Your task to perform on an android device: turn off improve location accuracy Image 0: 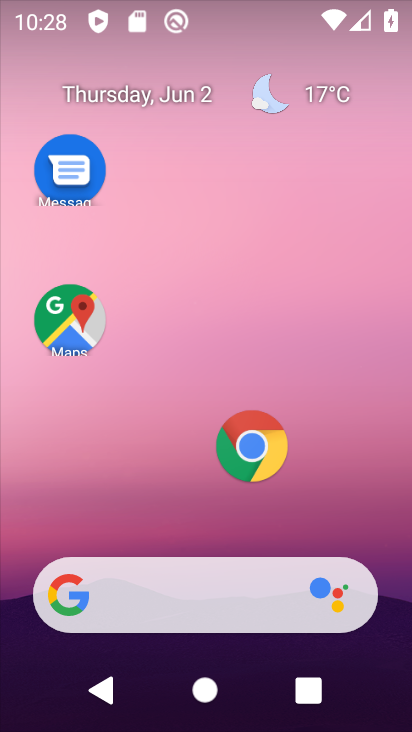
Step 0: drag from (184, 457) to (197, 20)
Your task to perform on an android device: turn off improve location accuracy Image 1: 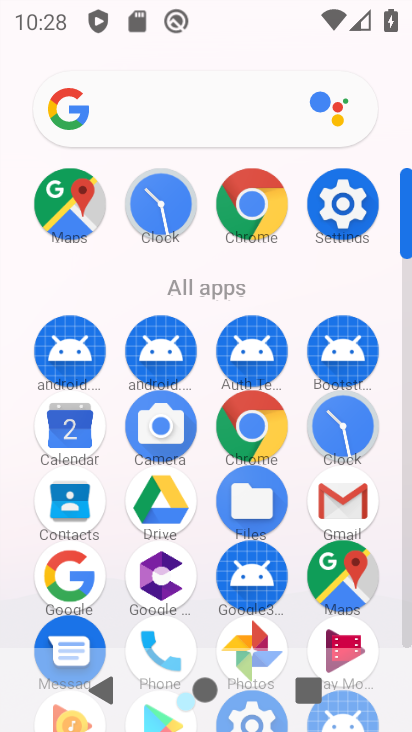
Step 1: drag from (225, 591) to (244, 515)
Your task to perform on an android device: turn off improve location accuracy Image 2: 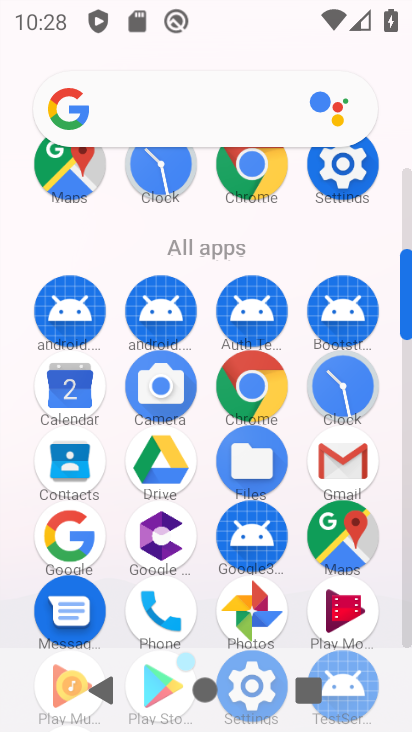
Step 2: click (350, 172)
Your task to perform on an android device: turn off improve location accuracy Image 3: 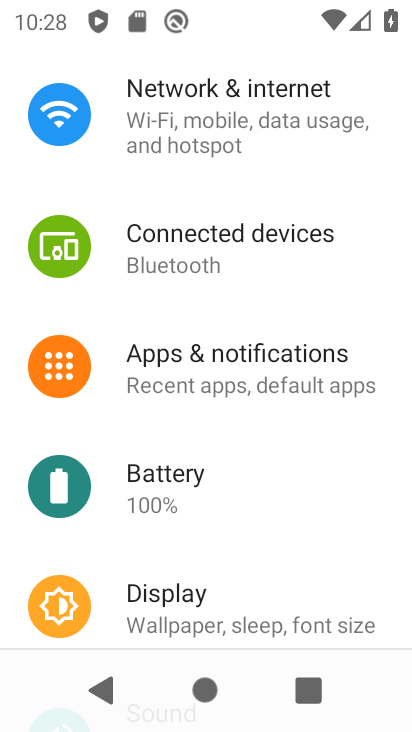
Step 3: drag from (315, 626) to (183, 237)
Your task to perform on an android device: turn off improve location accuracy Image 4: 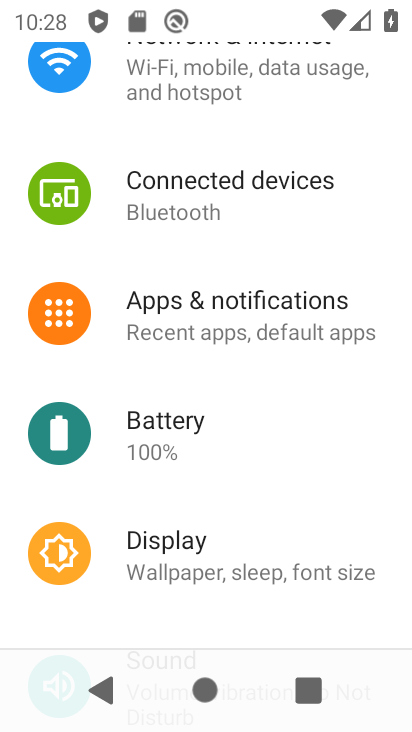
Step 4: drag from (286, 467) to (264, 166)
Your task to perform on an android device: turn off improve location accuracy Image 5: 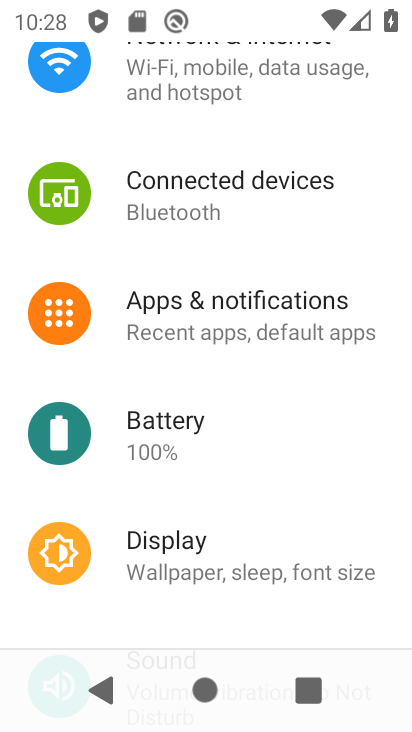
Step 5: drag from (220, 524) to (259, 22)
Your task to perform on an android device: turn off improve location accuracy Image 6: 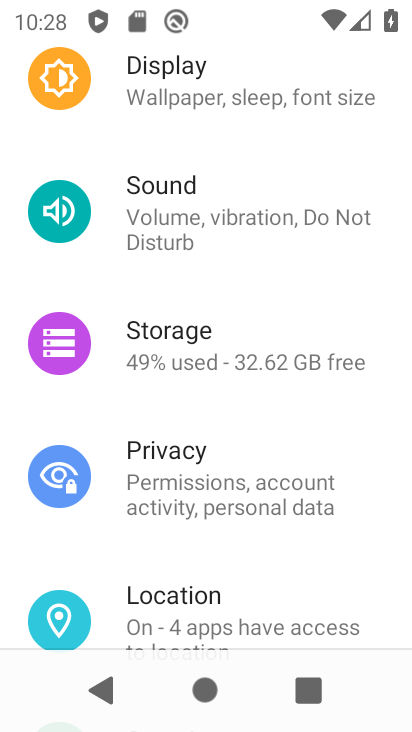
Step 6: drag from (251, 445) to (250, 71)
Your task to perform on an android device: turn off improve location accuracy Image 7: 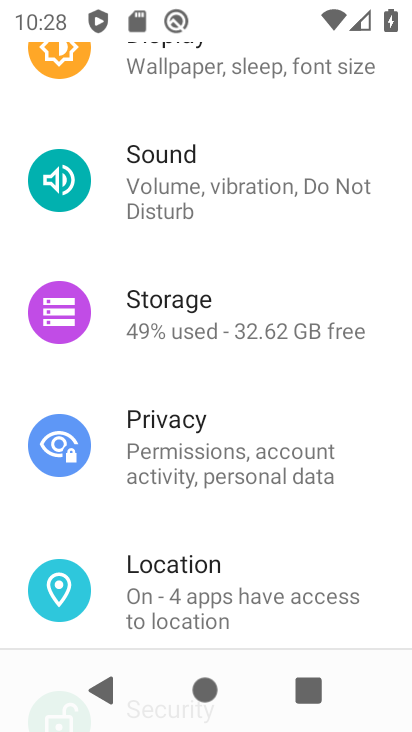
Step 7: click (193, 574)
Your task to perform on an android device: turn off improve location accuracy Image 8: 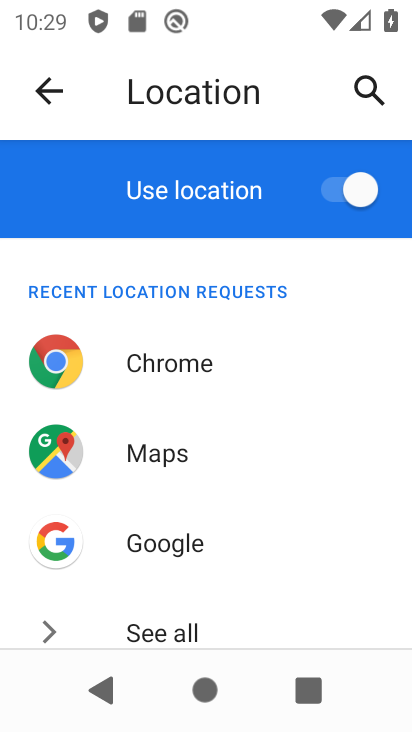
Step 8: drag from (237, 595) to (244, 299)
Your task to perform on an android device: turn off improve location accuracy Image 9: 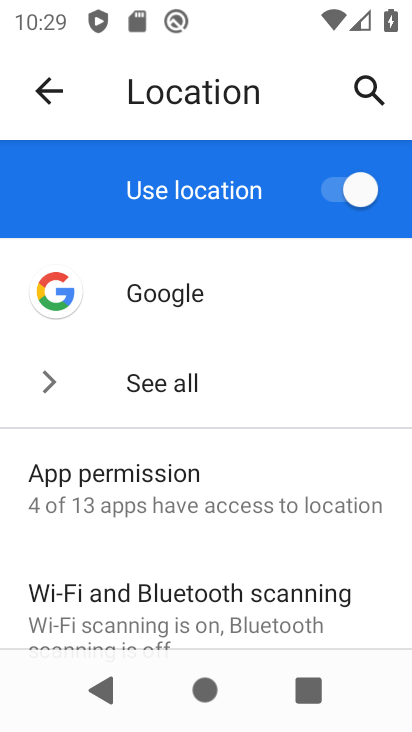
Step 9: drag from (213, 556) to (233, 352)
Your task to perform on an android device: turn off improve location accuracy Image 10: 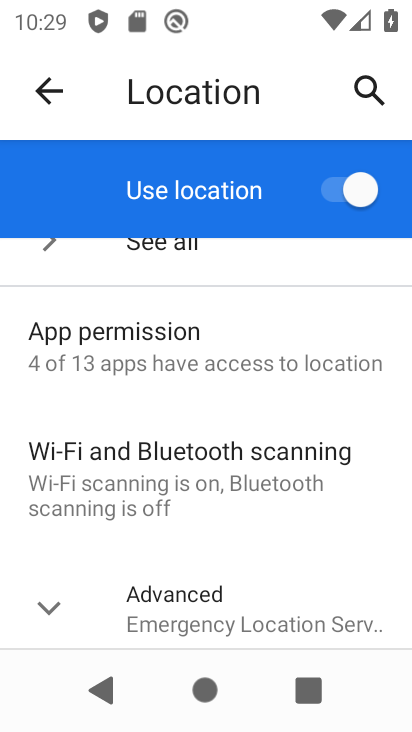
Step 10: drag from (123, 575) to (214, 427)
Your task to perform on an android device: turn off improve location accuracy Image 11: 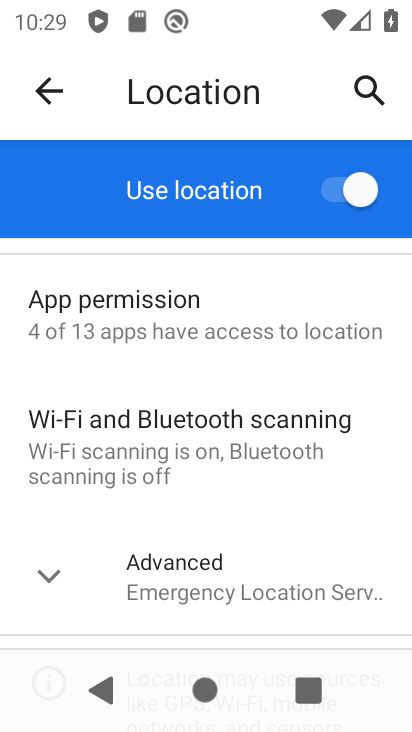
Step 11: click (145, 590)
Your task to perform on an android device: turn off improve location accuracy Image 12: 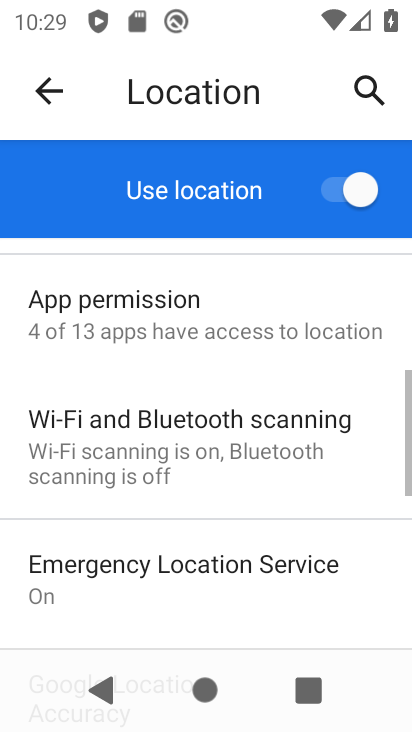
Step 12: drag from (221, 560) to (267, 380)
Your task to perform on an android device: turn off improve location accuracy Image 13: 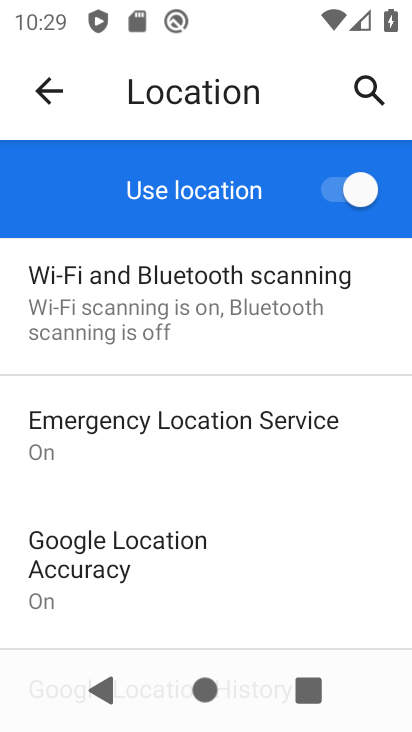
Step 13: drag from (278, 605) to (328, 393)
Your task to perform on an android device: turn off improve location accuracy Image 14: 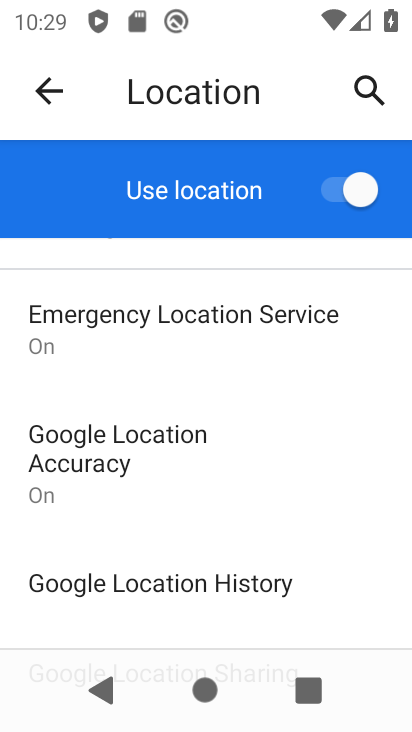
Step 14: drag from (306, 506) to (319, 342)
Your task to perform on an android device: turn off improve location accuracy Image 15: 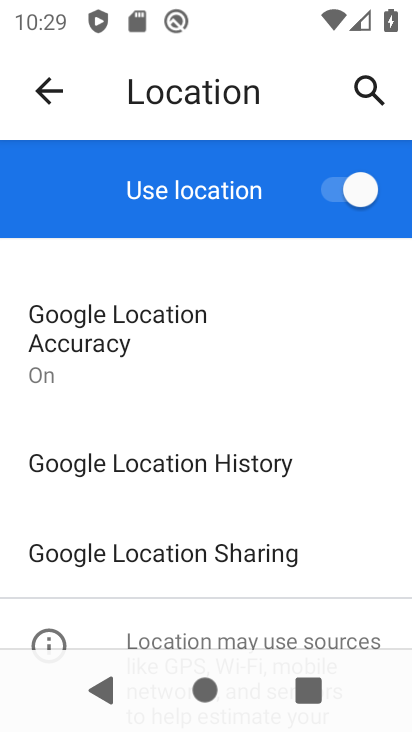
Step 15: drag from (284, 519) to (314, 361)
Your task to perform on an android device: turn off improve location accuracy Image 16: 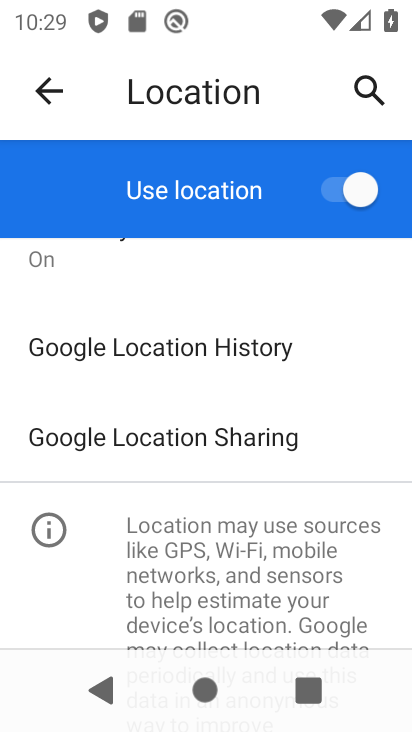
Step 16: drag from (314, 361) to (274, 582)
Your task to perform on an android device: turn off improve location accuracy Image 17: 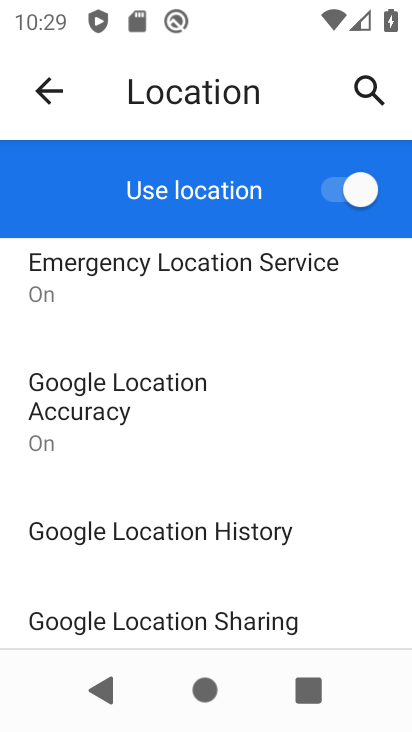
Step 17: click (165, 409)
Your task to perform on an android device: turn off improve location accuracy Image 18: 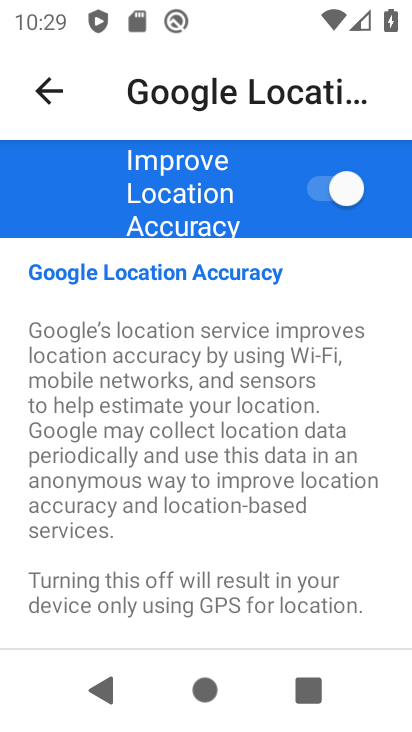
Step 18: click (206, 207)
Your task to perform on an android device: turn off improve location accuracy Image 19: 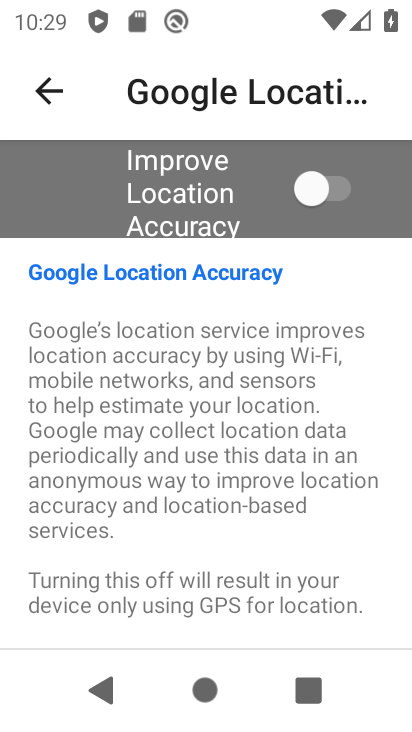
Step 19: task complete